Your task to perform on an android device: Find coffee shops on Maps Image 0: 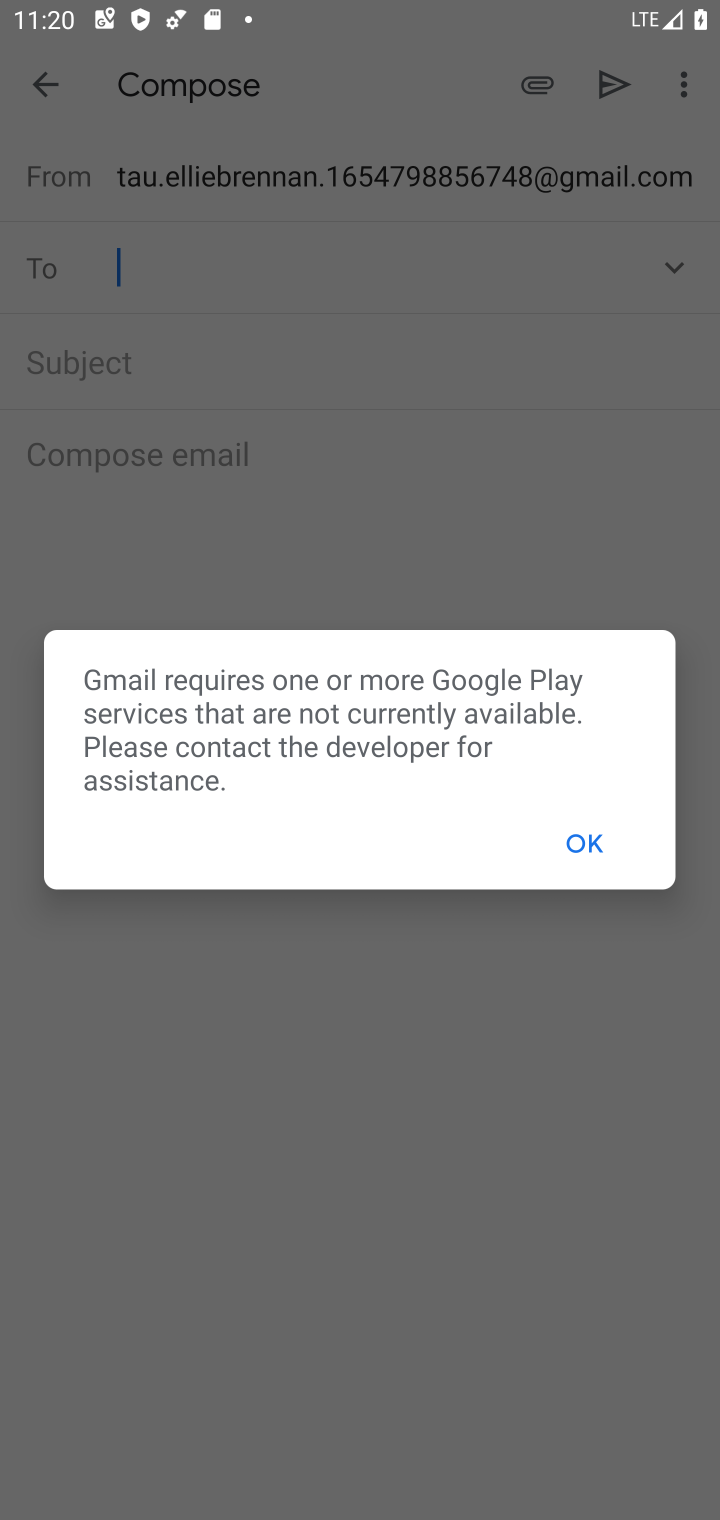
Step 0: press back button
Your task to perform on an android device: Find coffee shops on Maps Image 1: 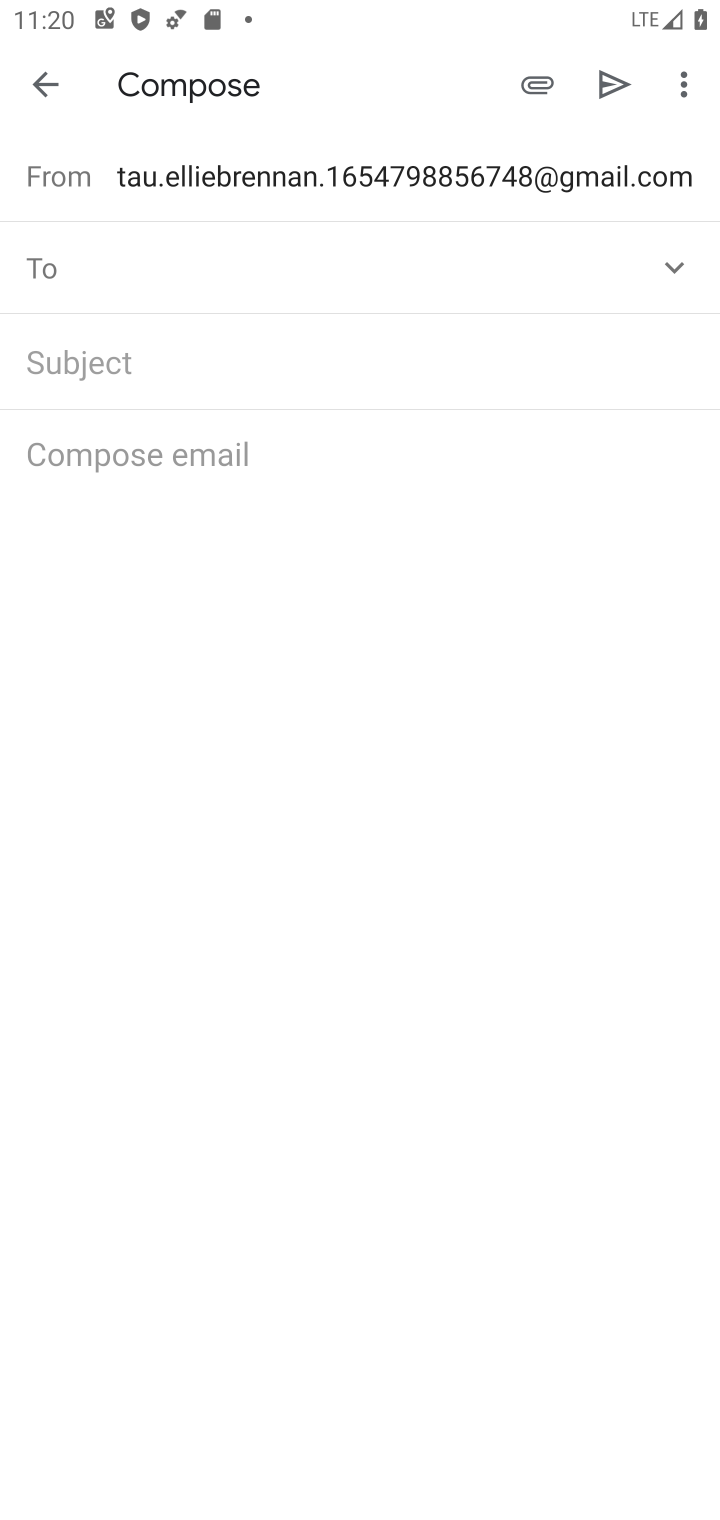
Step 1: press back button
Your task to perform on an android device: Find coffee shops on Maps Image 2: 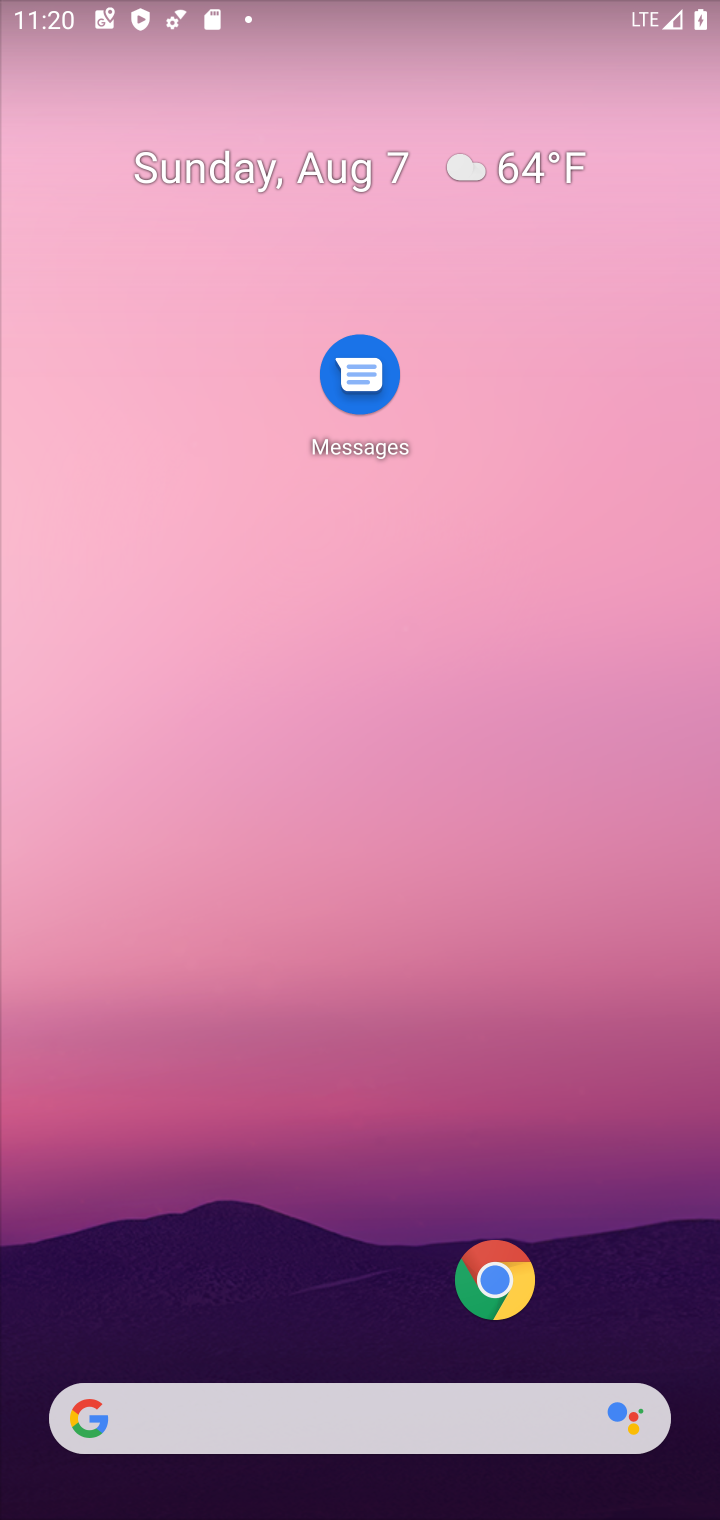
Step 2: drag from (194, 1311) to (436, 90)
Your task to perform on an android device: Find coffee shops on Maps Image 3: 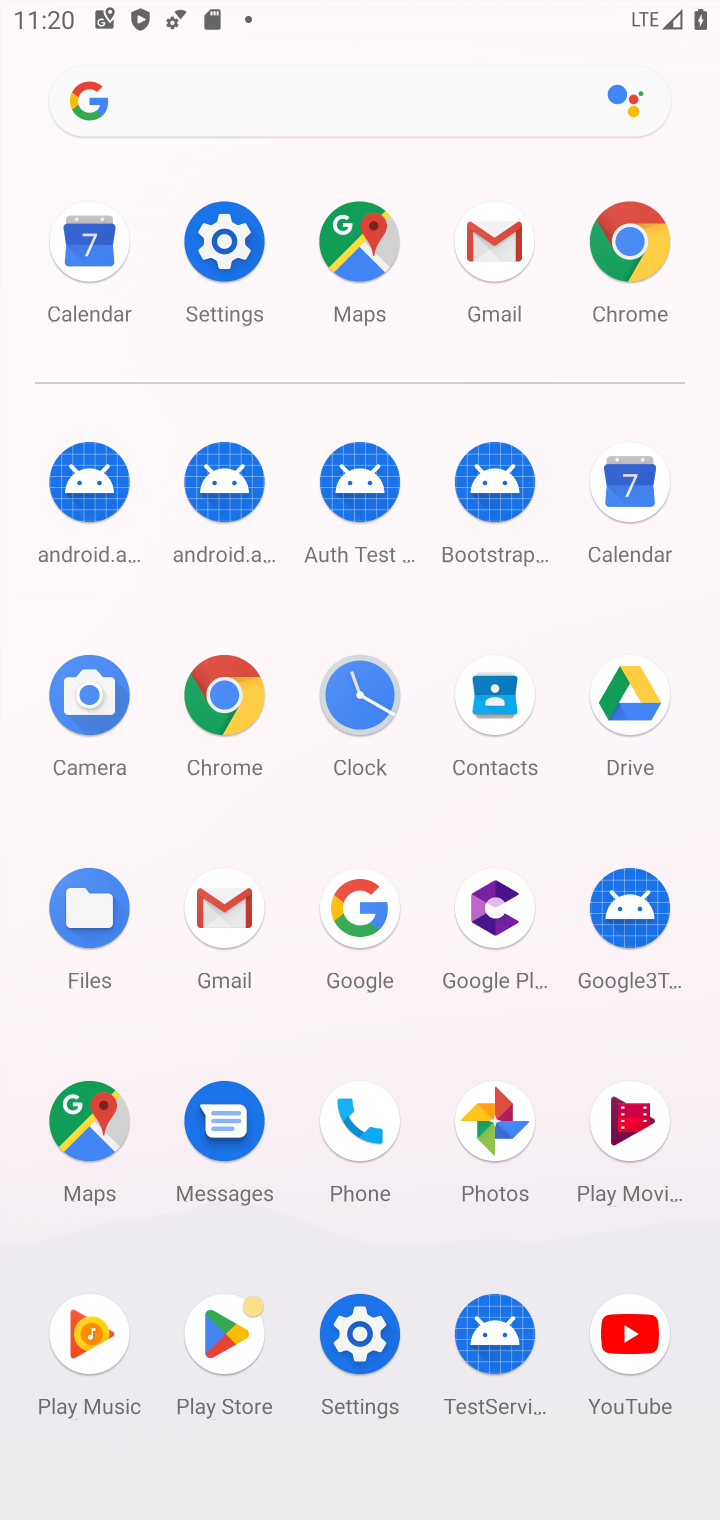
Step 3: click (357, 221)
Your task to perform on an android device: Find coffee shops on Maps Image 4: 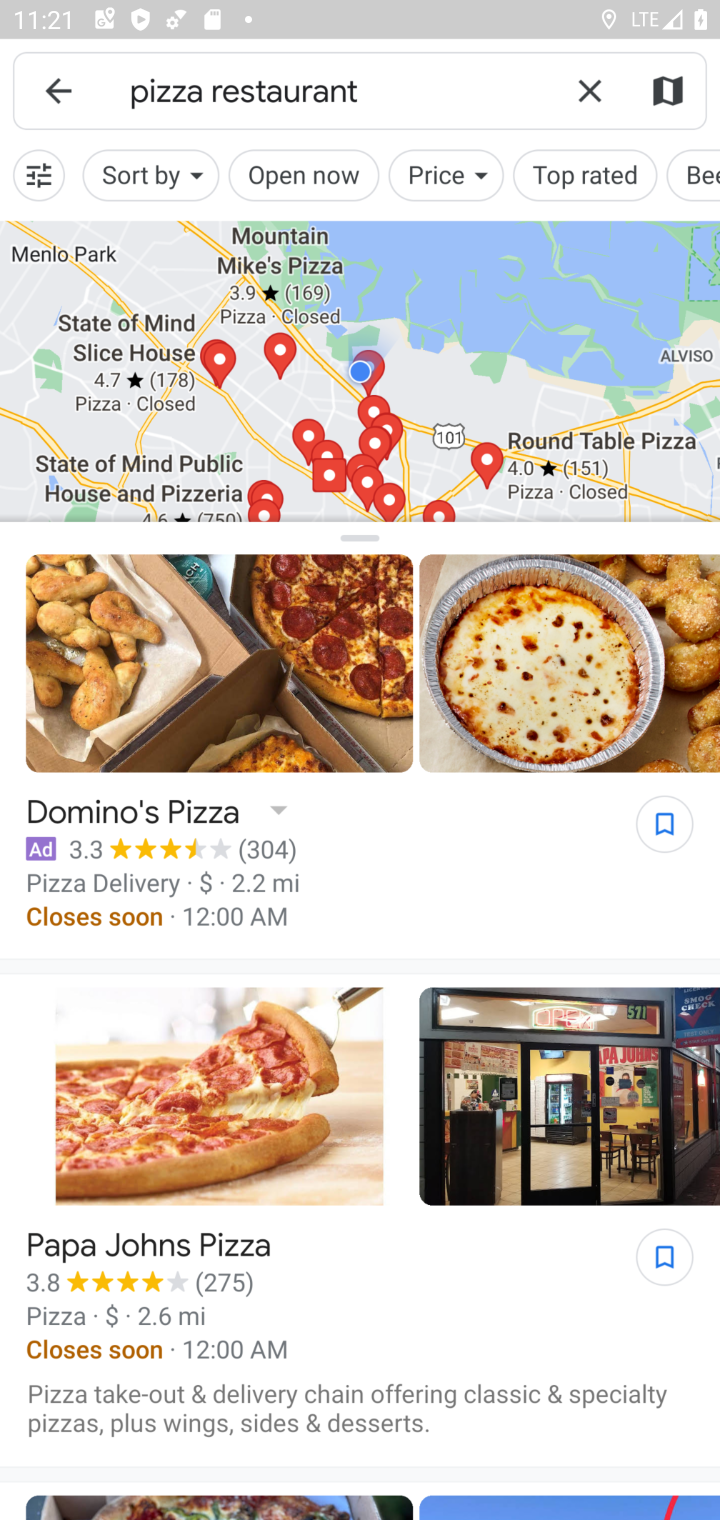
Step 4: click (588, 73)
Your task to perform on an android device: Find coffee shops on Maps Image 5: 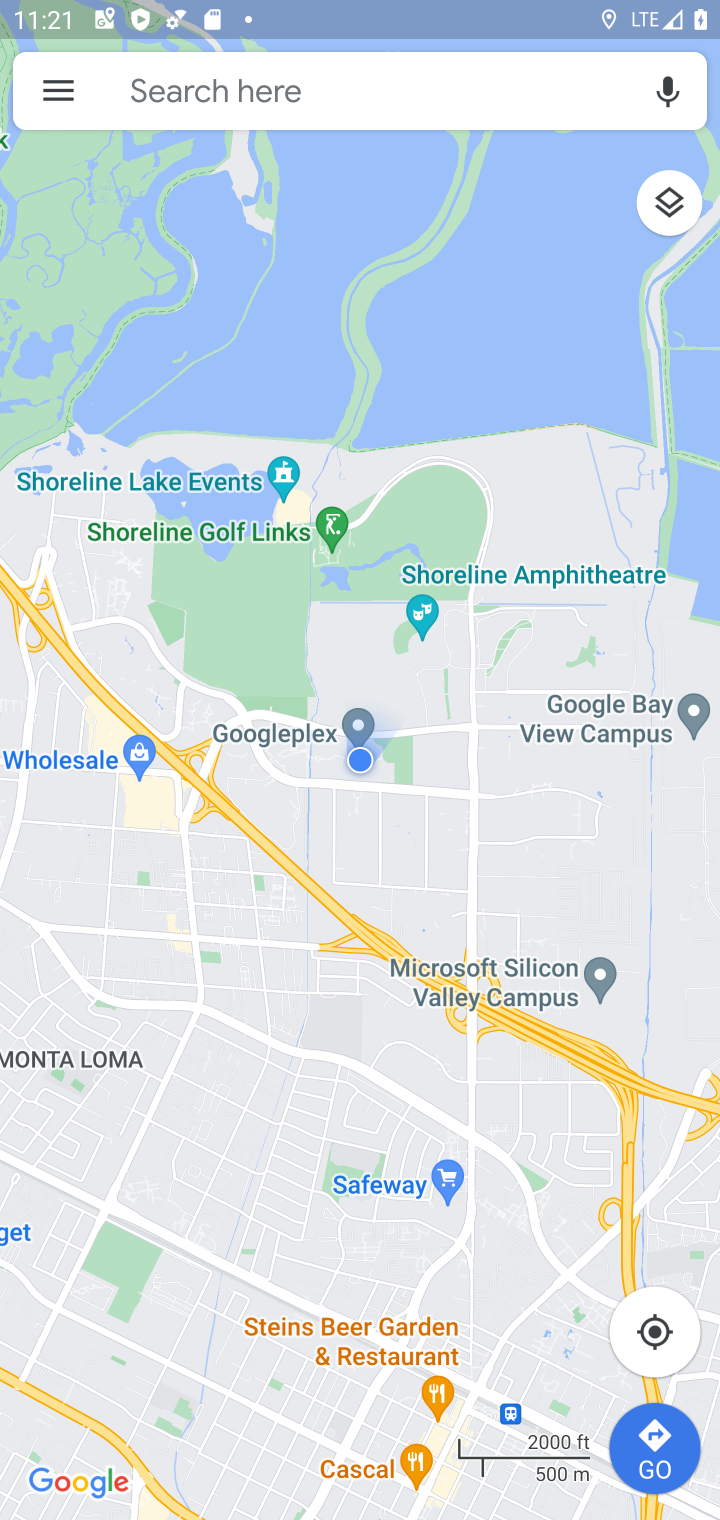
Step 5: click (430, 79)
Your task to perform on an android device: Find coffee shops on Maps Image 6: 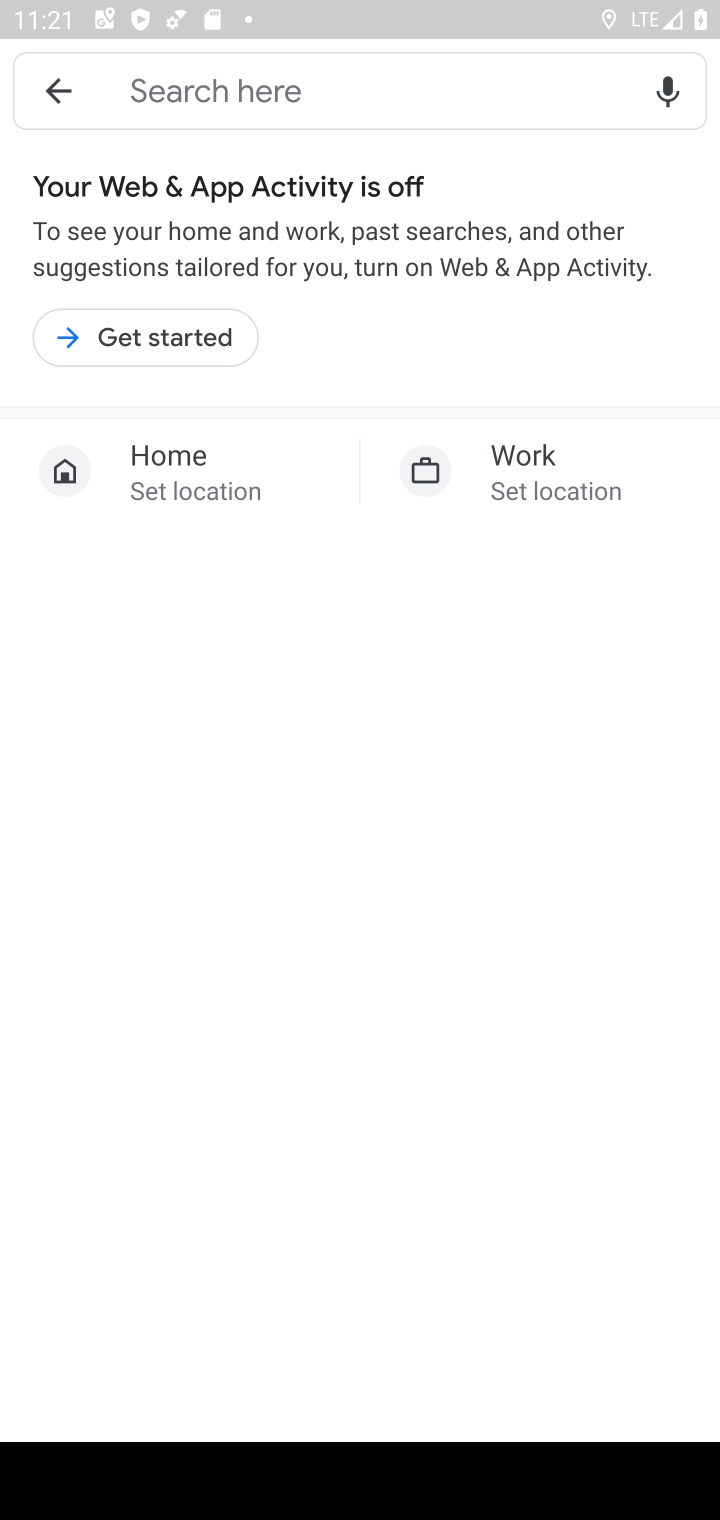
Step 6: type "coffee shops"
Your task to perform on an android device: Find coffee shops on Maps Image 7: 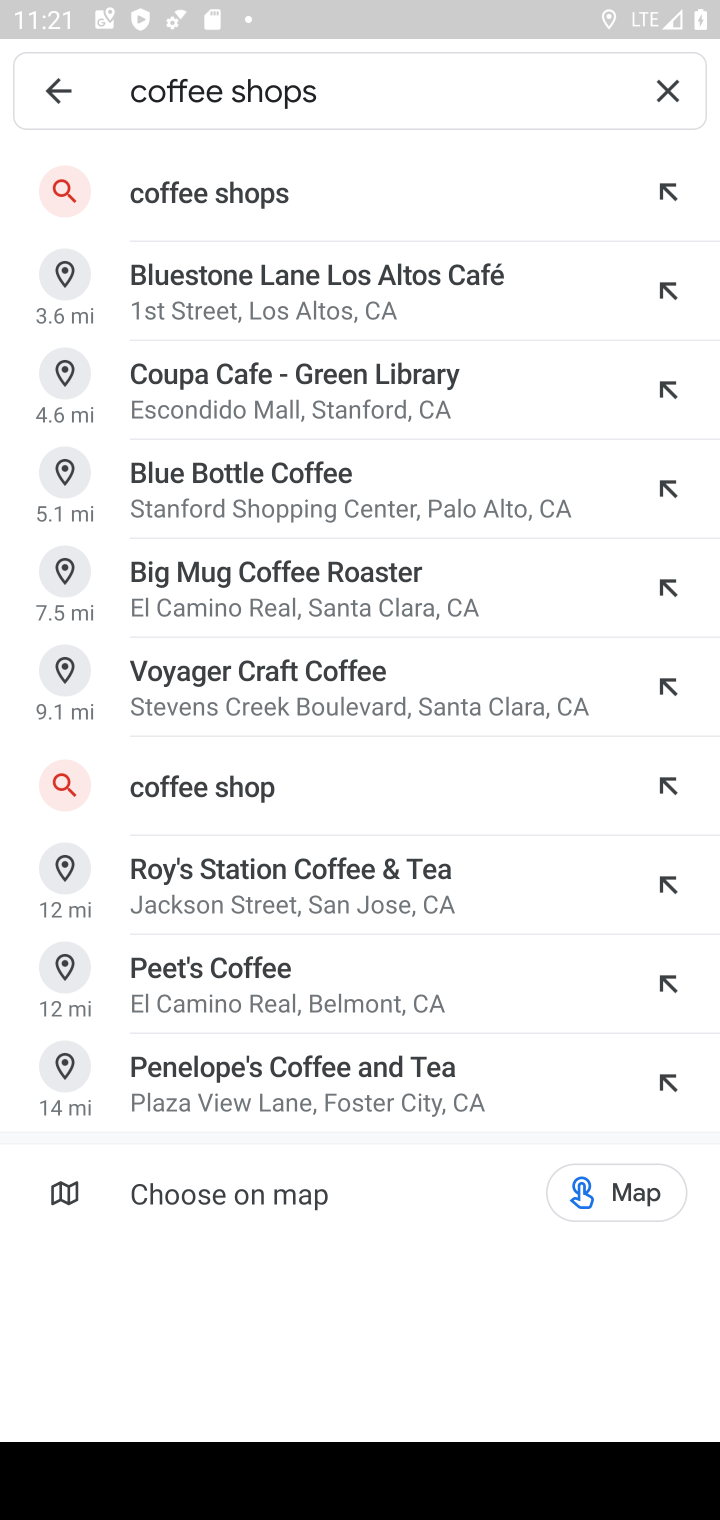
Step 7: click (303, 178)
Your task to perform on an android device: Find coffee shops on Maps Image 8: 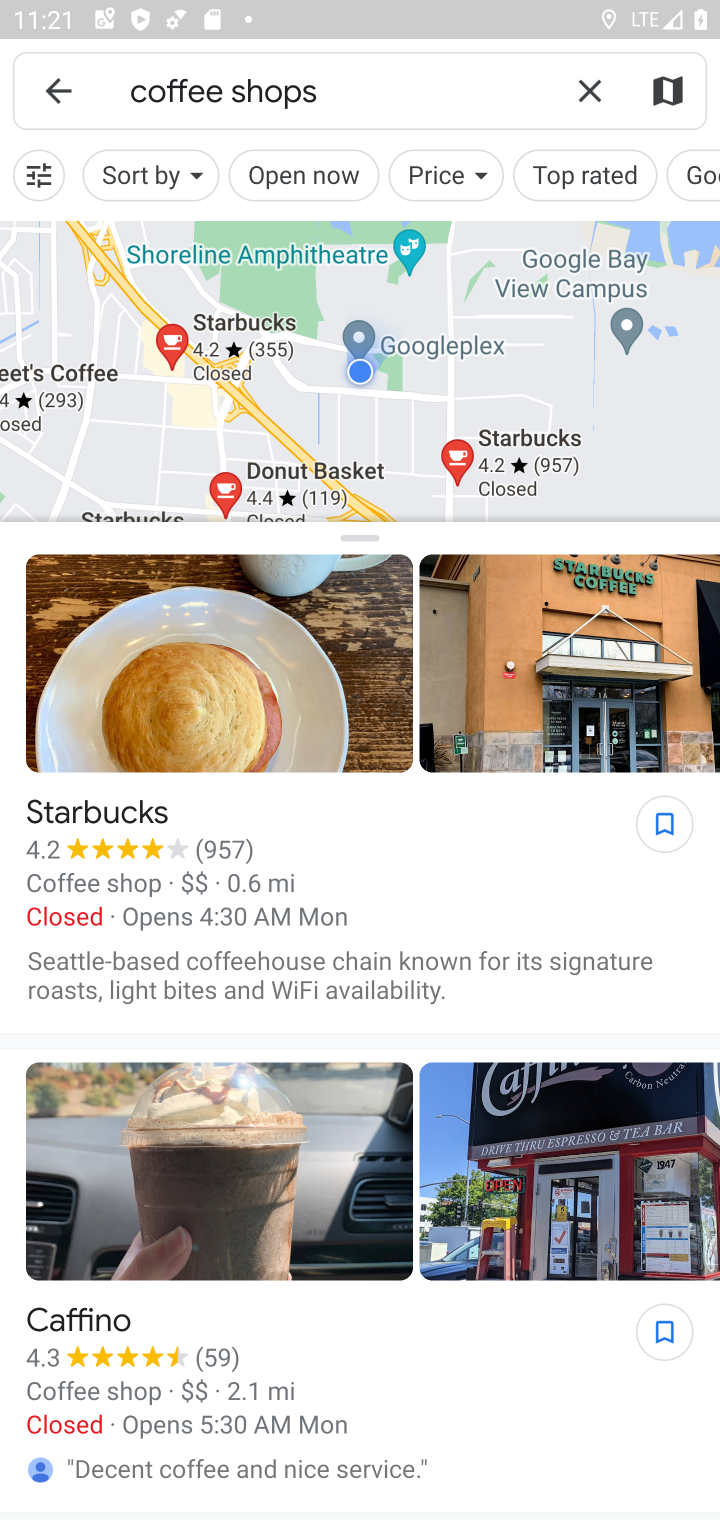
Step 8: task complete